Your task to perform on an android device: manage bookmarks in the chrome app Image 0: 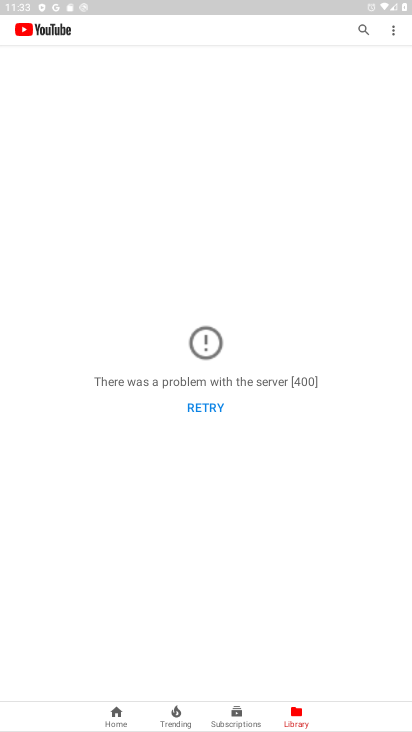
Step 0: press home button
Your task to perform on an android device: manage bookmarks in the chrome app Image 1: 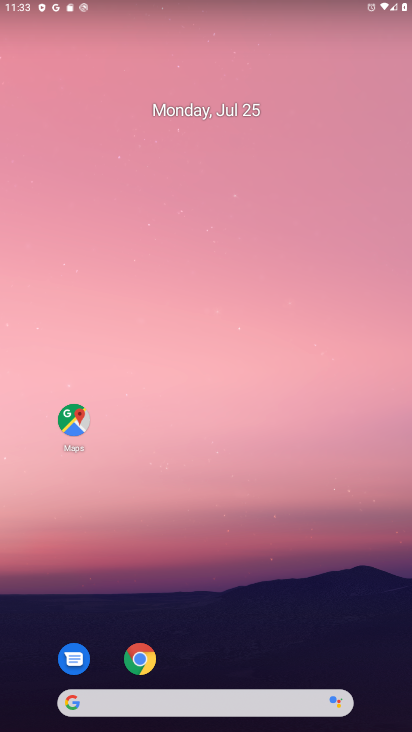
Step 1: click (244, 613)
Your task to perform on an android device: manage bookmarks in the chrome app Image 2: 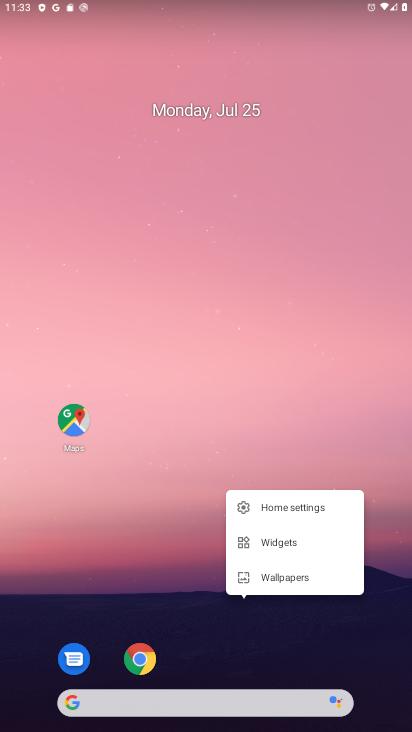
Step 2: click (142, 656)
Your task to perform on an android device: manage bookmarks in the chrome app Image 3: 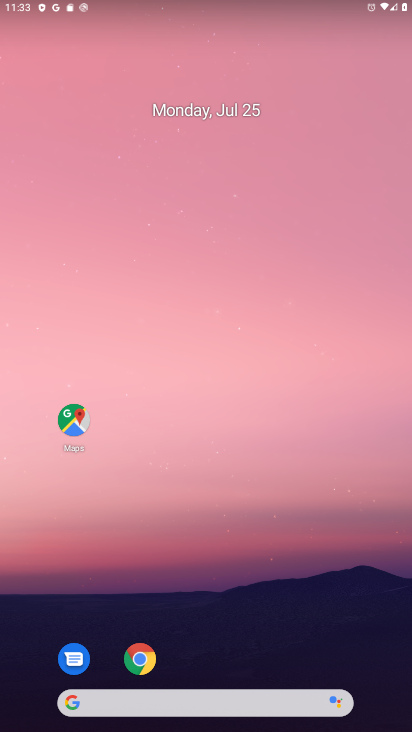
Step 3: click (140, 661)
Your task to perform on an android device: manage bookmarks in the chrome app Image 4: 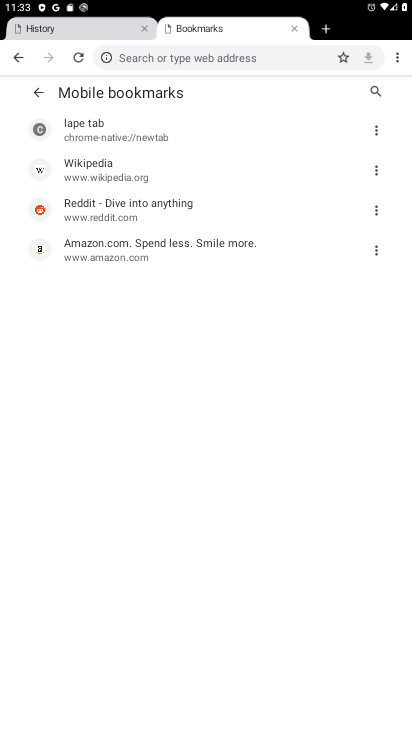
Step 4: click (396, 56)
Your task to perform on an android device: manage bookmarks in the chrome app Image 5: 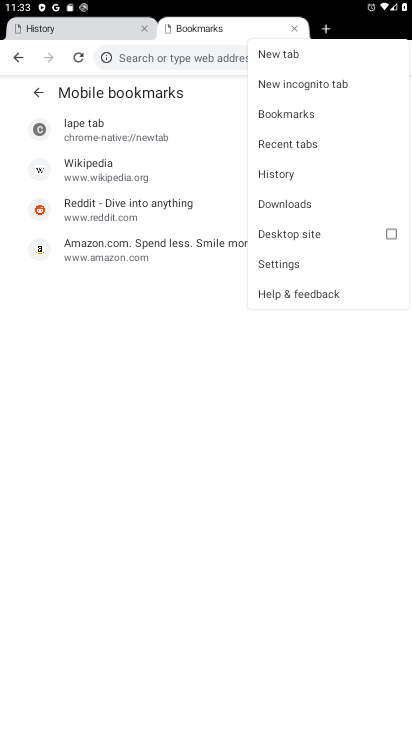
Step 5: click (293, 110)
Your task to perform on an android device: manage bookmarks in the chrome app Image 6: 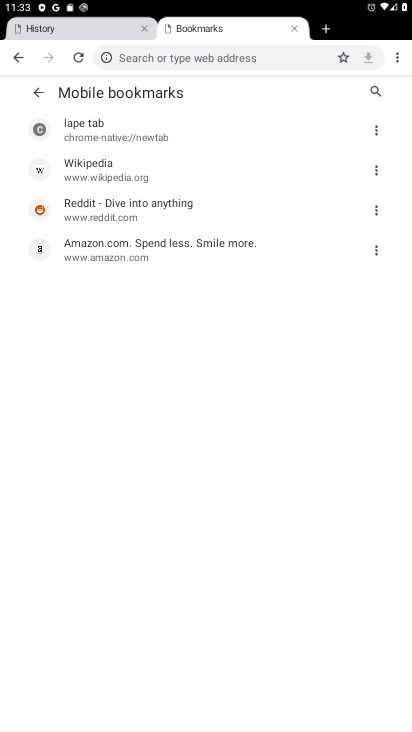
Step 6: click (376, 129)
Your task to perform on an android device: manage bookmarks in the chrome app Image 7: 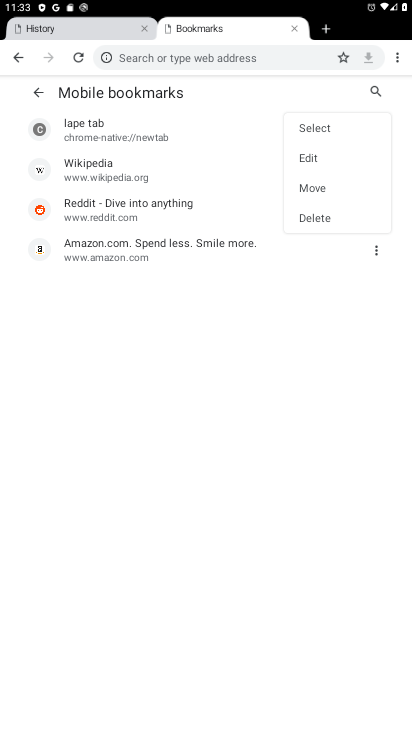
Step 7: click (315, 151)
Your task to perform on an android device: manage bookmarks in the chrome app Image 8: 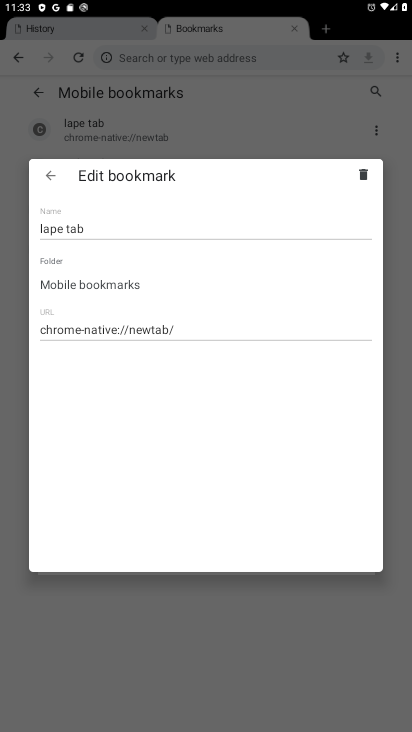
Step 8: task complete